Your task to perform on an android device: change the clock display to show seconds Image 0: 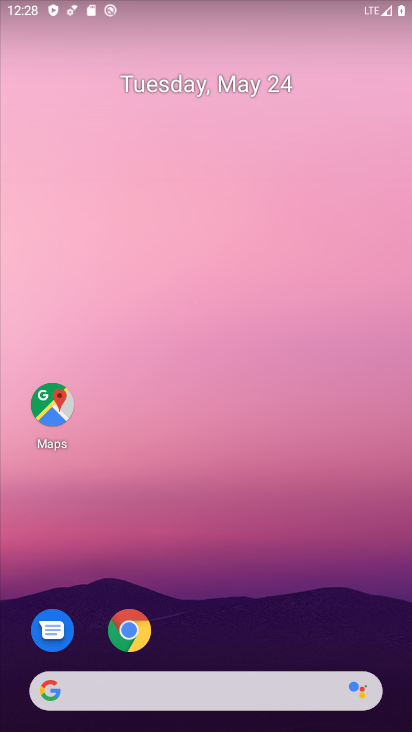
Step 0: drag from (262, 620) to (278, 166)
Your task to perform on an android device: change the clock display to show seconds Image 1: 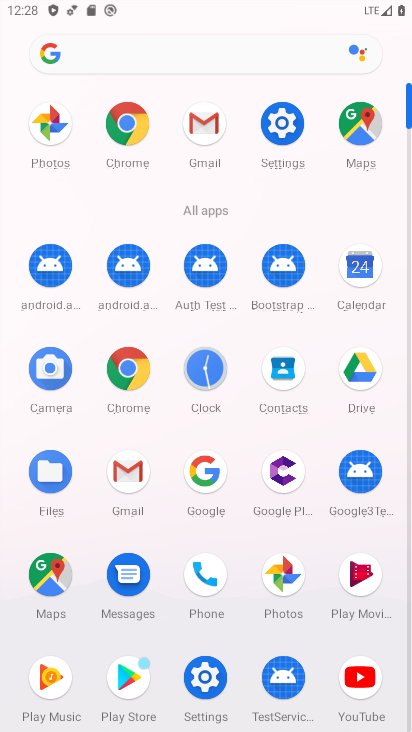
Step 1: click (211, 396)
Your task to perform on an android device: change the clock display to show seconds Image 2: 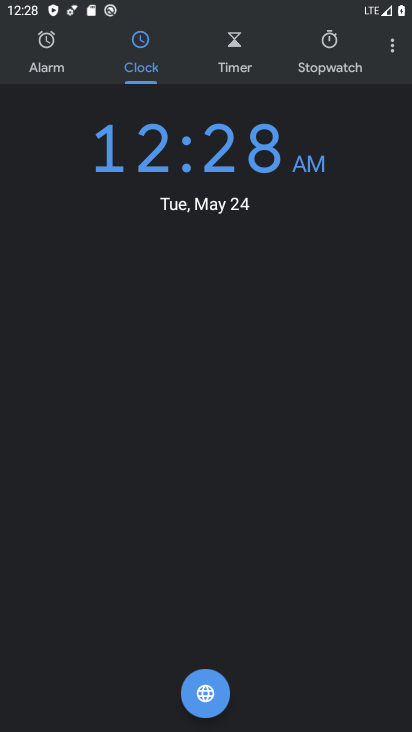
Step 2: click (396, 53)
Your task to perform on an android device: change the clock display to show seconds Image 3: 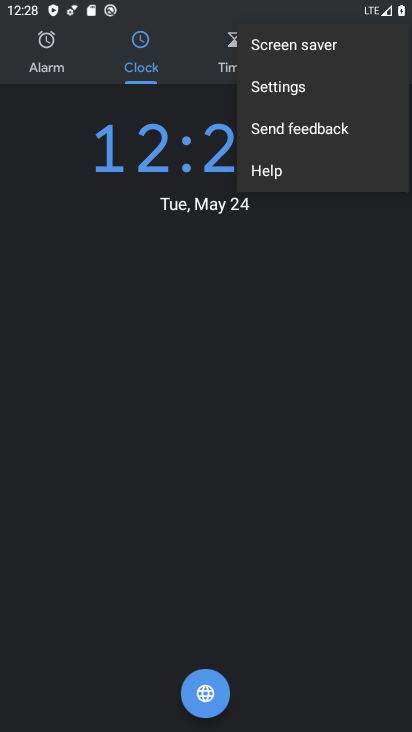
Step 3: click (324, 91)
Your task to perform on an android device: change the clock display to show seconds Image 4: 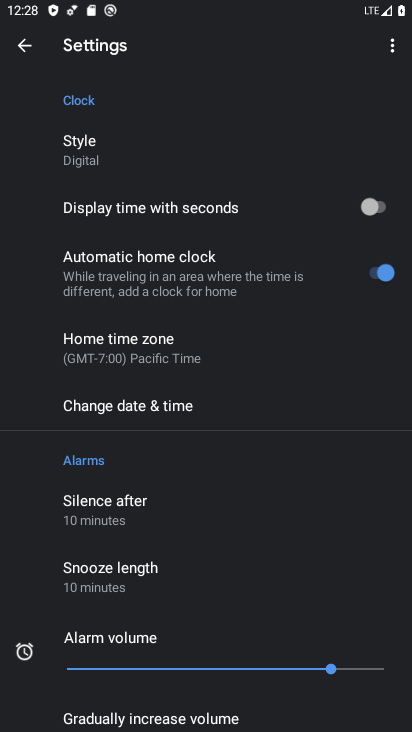
Step 4: click (381, 207)
Your task to perform on an android device: change the clock display to show seconds Image 5: 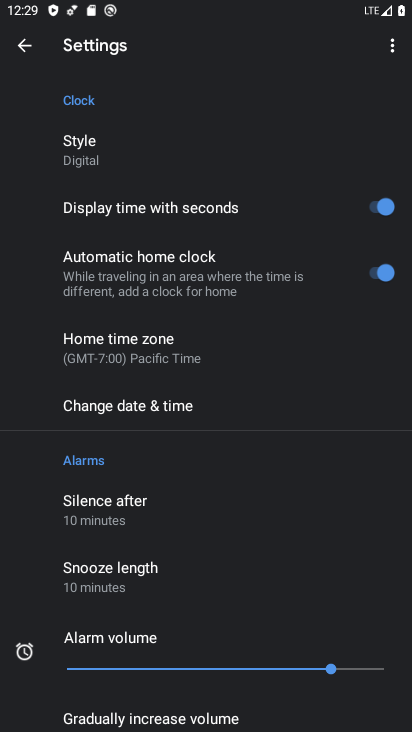
Step 5: task complete